Your task to perform on an android device: turn pop-ups off in chrome Image 0: 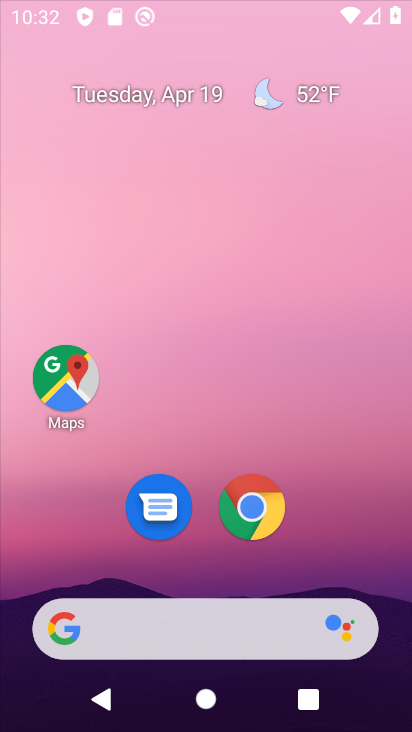
Step 0: drag from (372, 101) to (293, 5)
Your task to perform on an android device: turn pop-ups off in chrome Image 1: 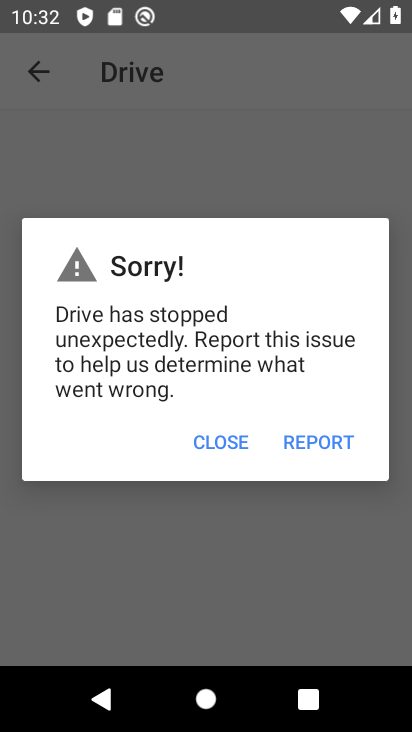
Step 1: press home button
Your task to perform on an android device: turn pop-ups off in chrome Image 2: 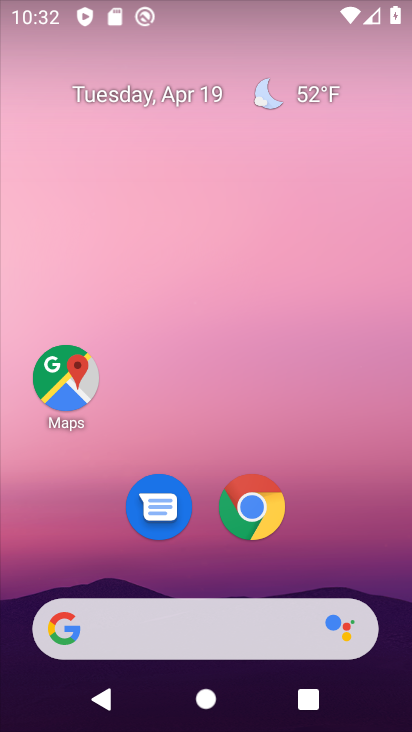
Step 2: drag from (366, 535) to (352, 119)
Your task to perform on an android device: turn pop-ups off in chrome Image 3: 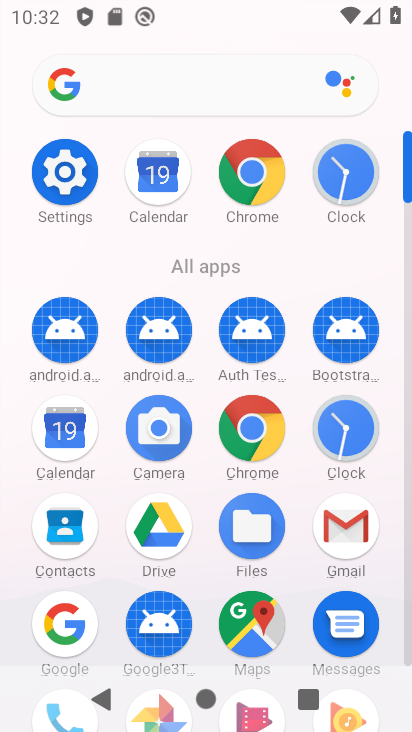
Step 3: click (244, 182)
Your task to perform on an android device: turn pop-ups off in chrome Image 4: 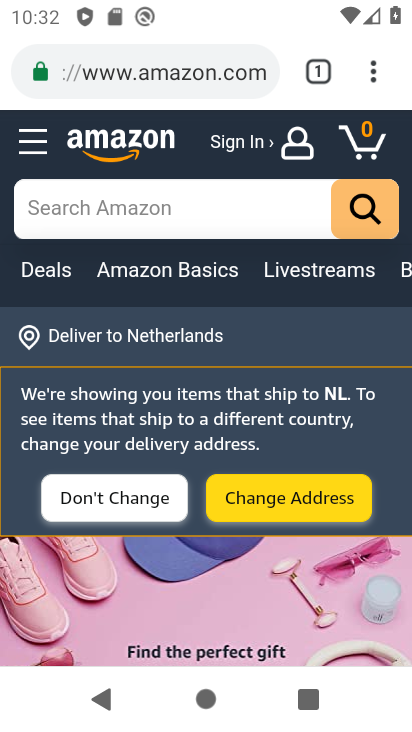
Step 4: click (371, 70)
Your task to perform on an android device: turn pop-ups off in chrome Image 5: 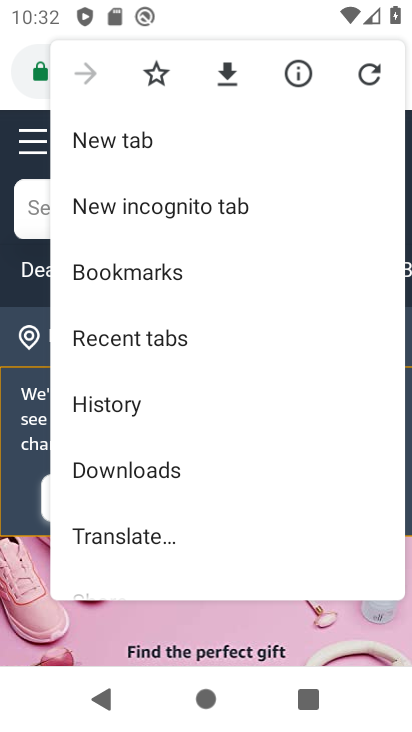
Step 5: drag from (334, 499) to (324, 334)
Your task to perform on an android device: turn pop-ups off in chrome Image 6: 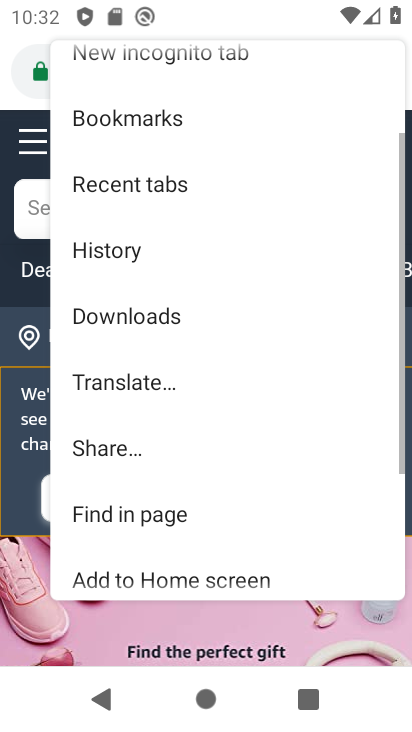
Step 6: drag from (332, 513) to (334, 274)
Your task to perform on an android device: turn pop-ups off in chrome Image 7: 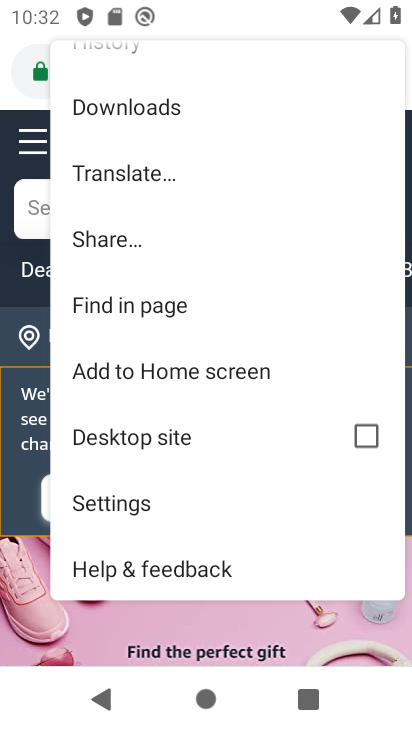
Step 7: click (144, 501)
Your task to perform on an android device: turn pop-ups off in chrome Image 8: 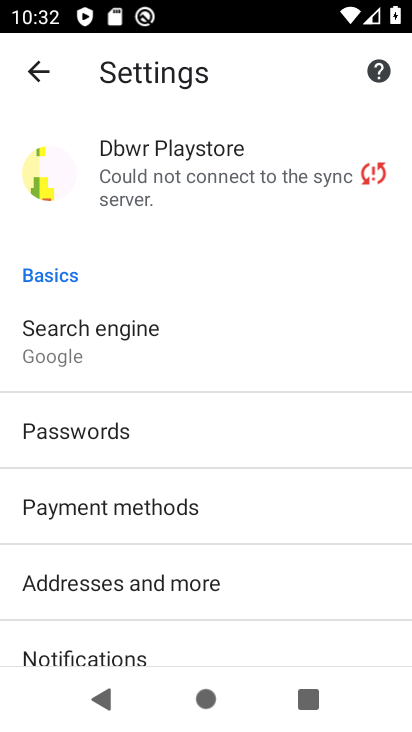
Step 8: drag from (290, 563) to (318, 323)
Your task to perform on an android device: turn pop-ups off in chrome Image 9: 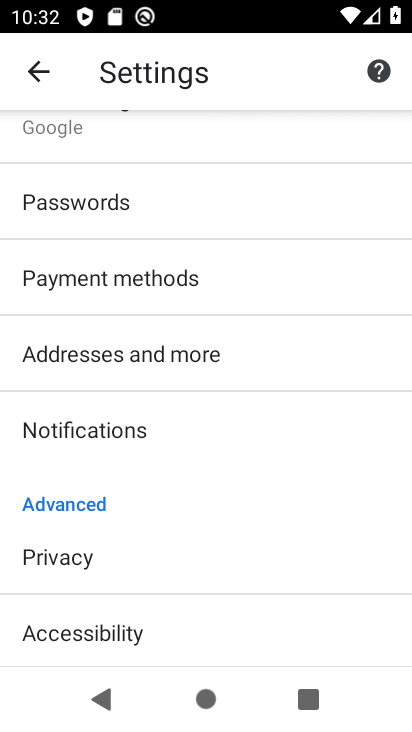
Step 9: drag from (300, 606) to (307, 271)
Your task to perform on an android device: turn pop-ups off in chrome Image 10: 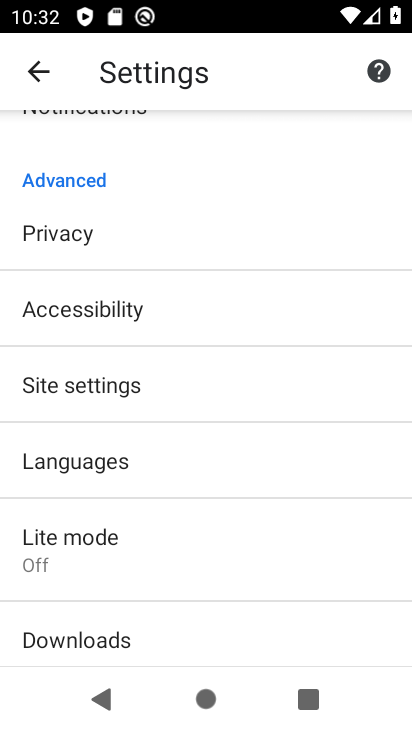
Step 10: click (186, 389)
Your task to perform on an android device: turn pop-ups off in chrome Image 11: 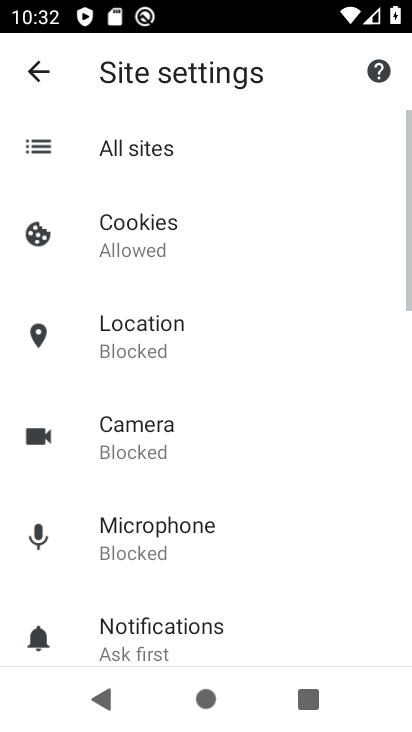
Step 11: drag from (334, 586) to (366, 337)
Your task to perform on an android device: turn pop-ups off in chrome Image 12: 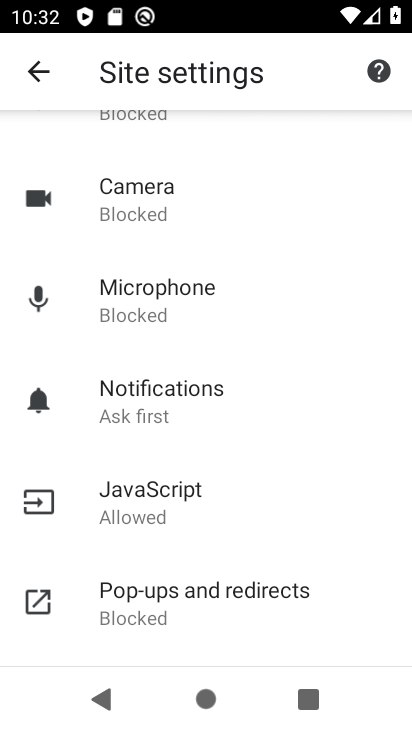
Step 12: drag from (346, 610) to (349, 384)
Your task to perform on an android device: turn pop-ups off in chrome Image 13: 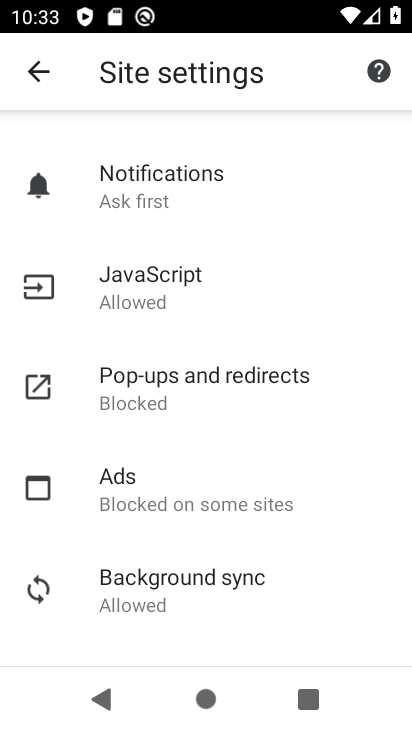
Step 13: click (169, 383)
Your task to perform on an android device: turn pop-ups off in chrome Image 14: 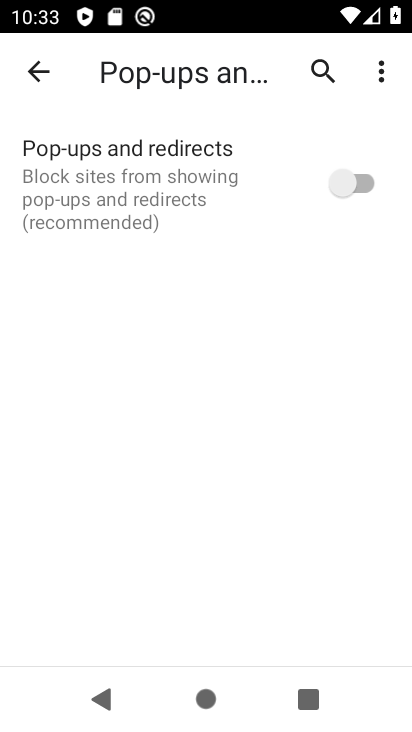
Step 14: task complete